Your task to perform on an android device: open app "Upside-Cash back on gas & food" (install if not already installed) Image 0: 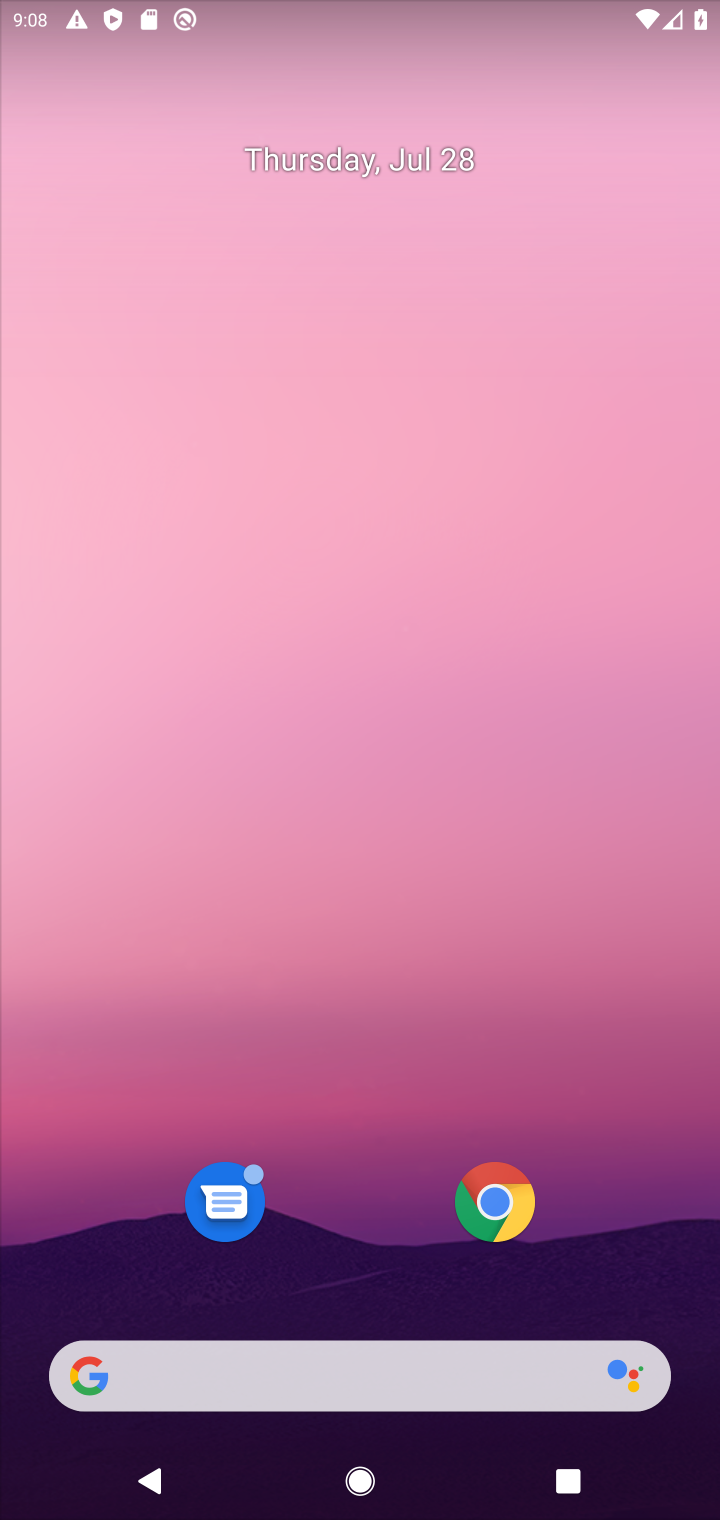
Step 0: drag from (524, 1169) to (704, 7)
Your task to perform on an android device: open app "Upside-Cash back on gas & food" (install if not already installed) Image 1: 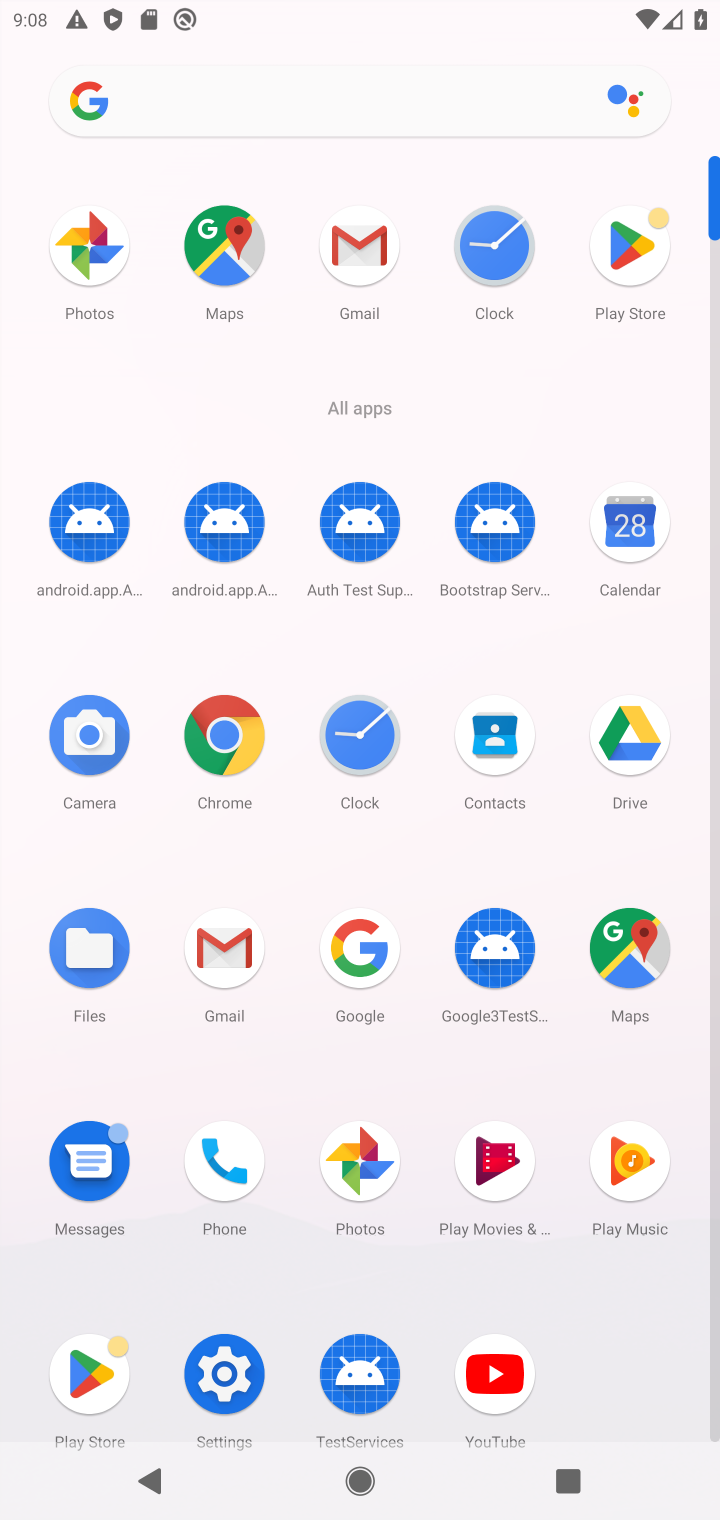
Step 1: click (635, 260)
Your task to perform on an android device: open app "Upside-Cash back on gas & food" (install if not already installed) Image 2: 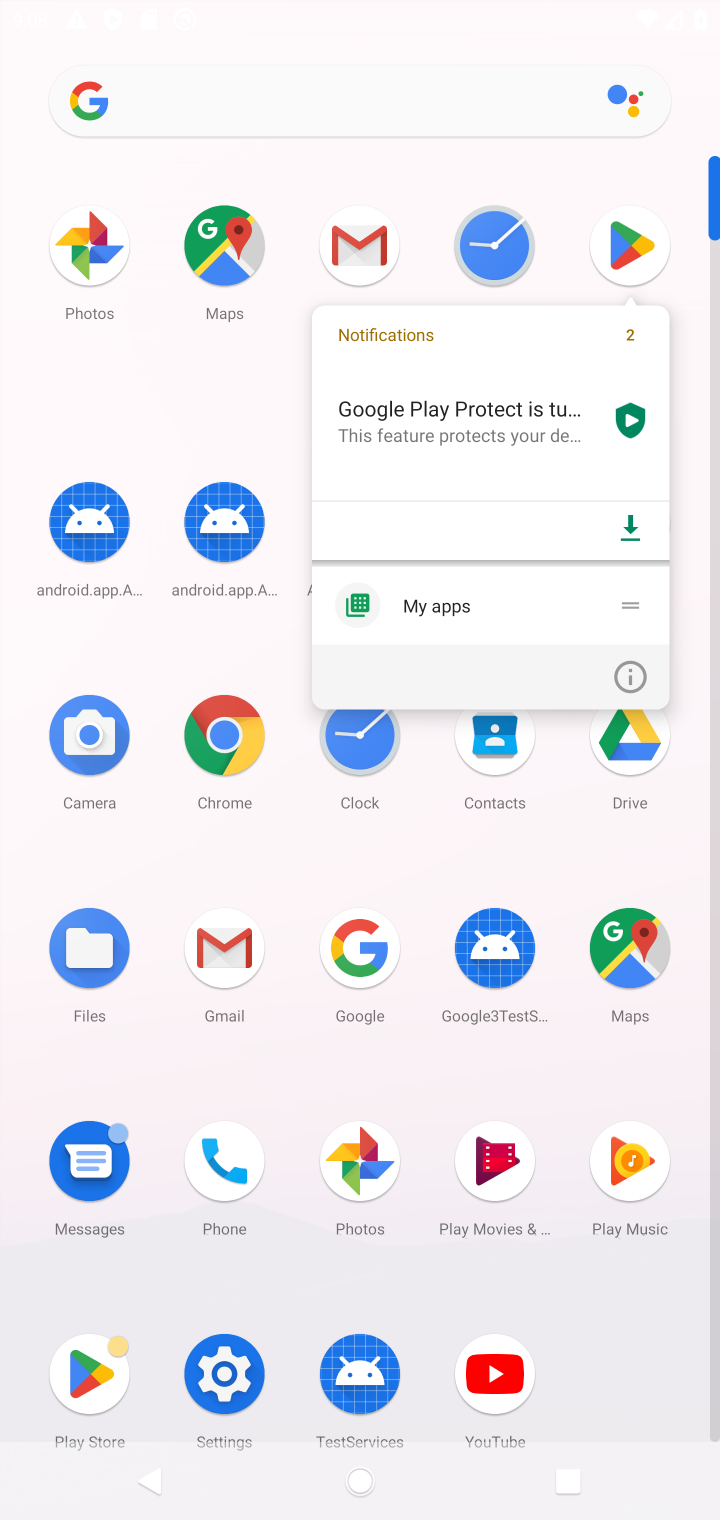
Step 2: click (656, 243)
Your task to perform on an android device: open app "Upside-Cash back on gas & food" (install if not already installed) Image 3: 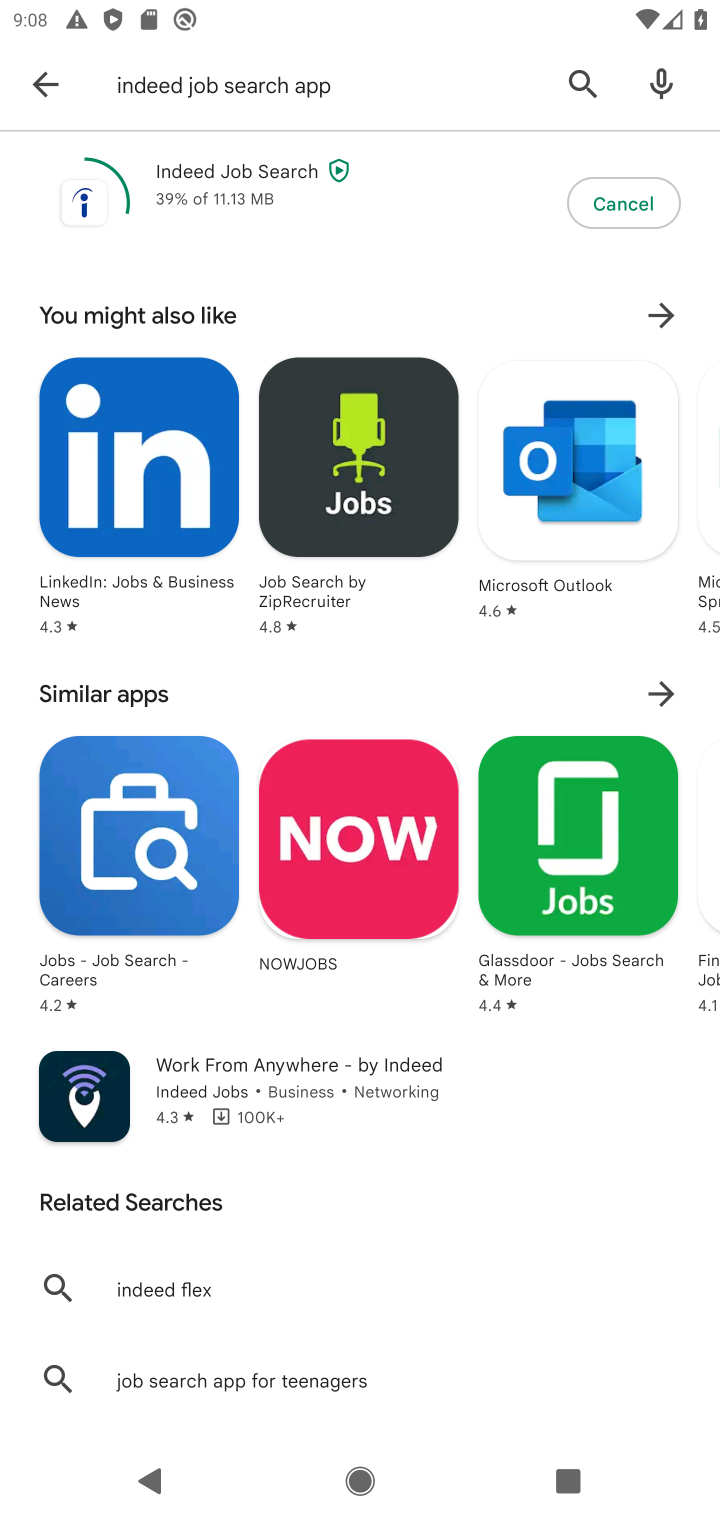
Step 3: click (581, 77)
Your task to perform on an android device: open app "Upside-Cash back on gas & food" (install if not already installed) Image 4: 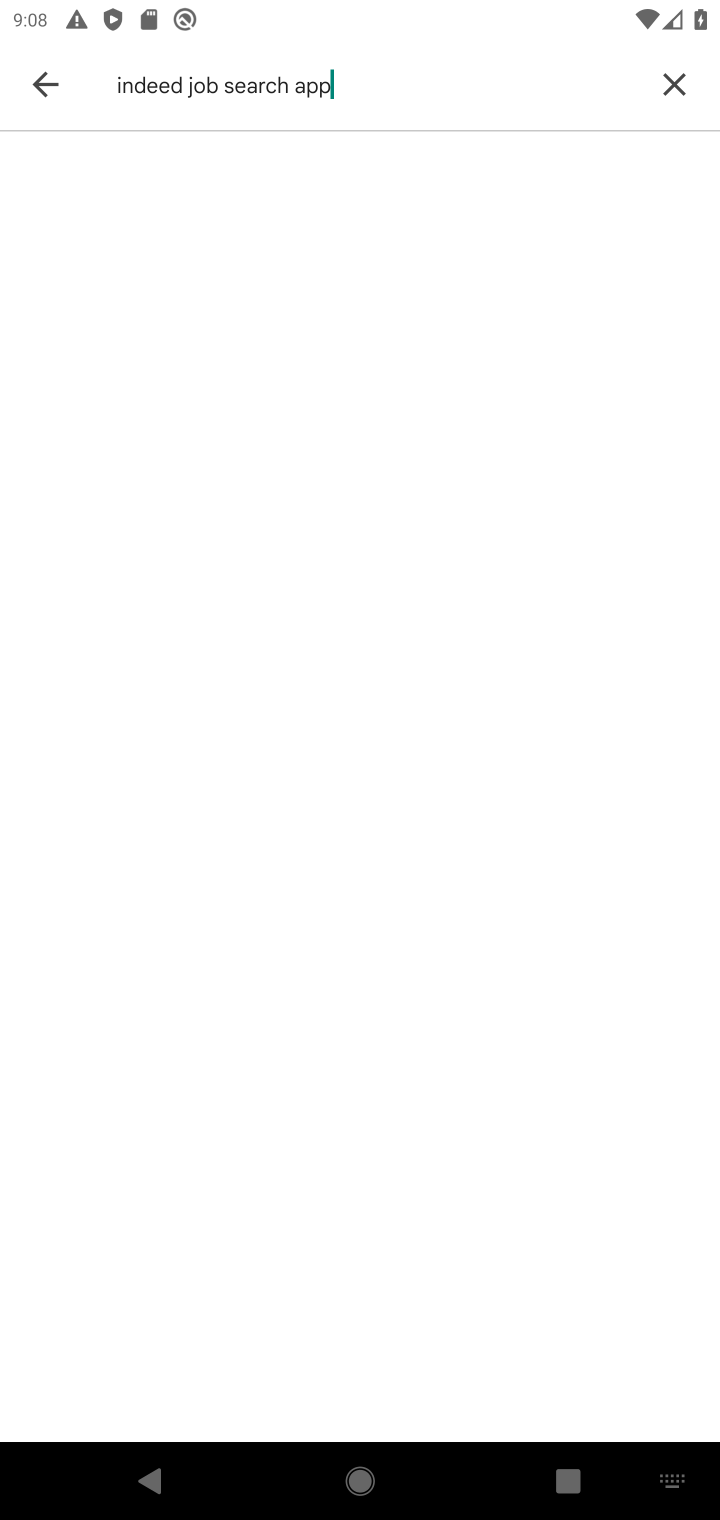
Step 4: click (675, 84)
Your task to perform on an android device: open app "Upside-Cash back on gas & food" (install if not already installed) Image 5: 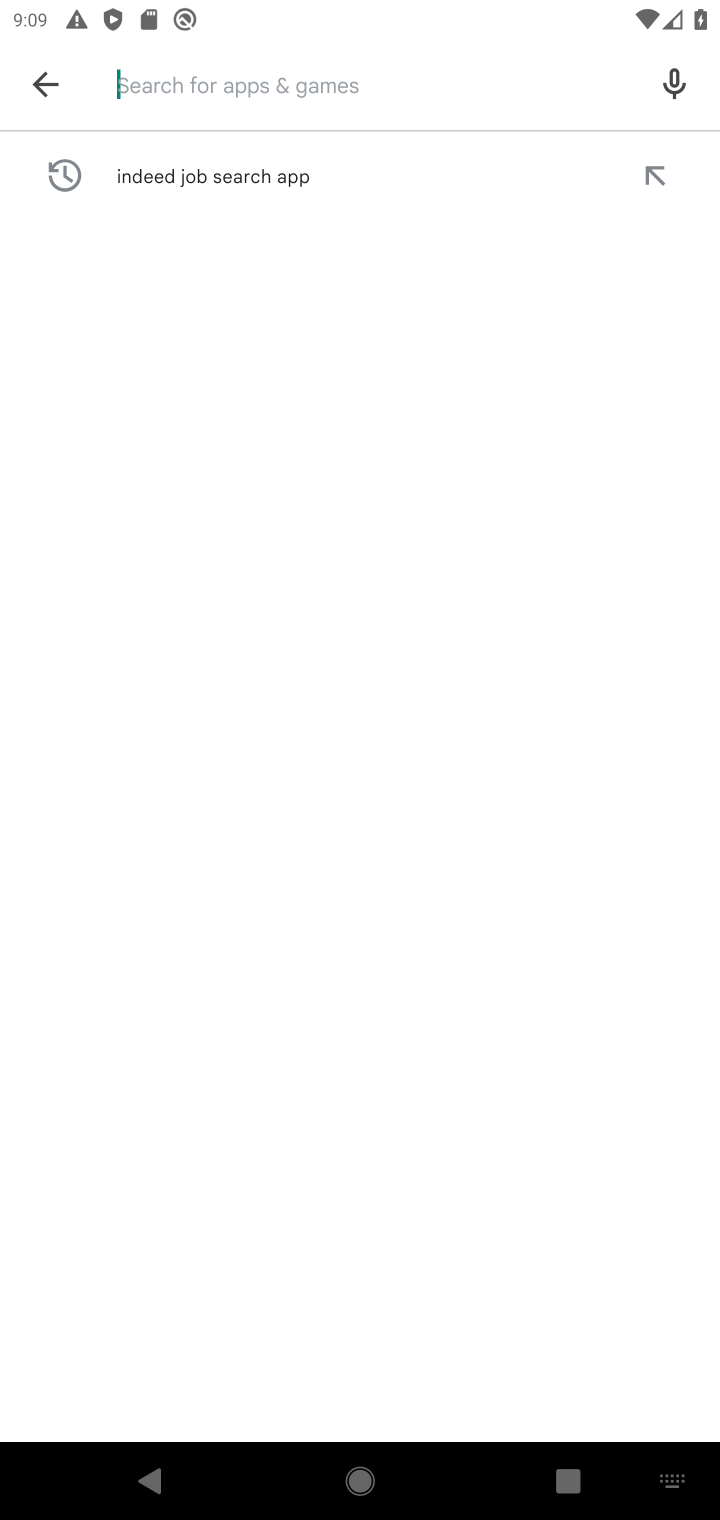
Step 5: type "upside-cashback on gas & food"
Your task to perform on an android device: open app "Upside-Cash back on gas & food" (install if not already installed) Image 6: 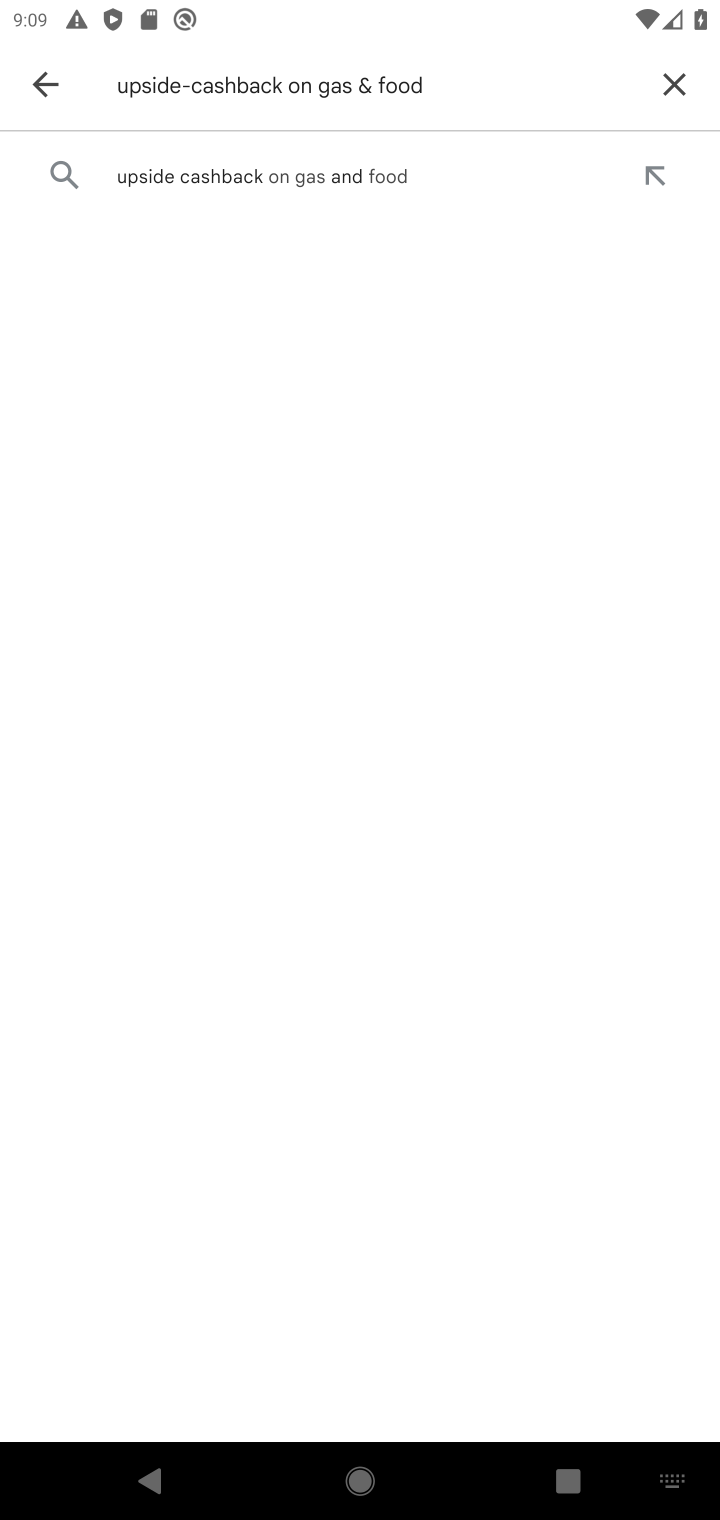
Step 6: click (368, 164)
Your task to perform on an android device: open app "Upside-Cash back on gas & food" (install if not already installed) Image 7: 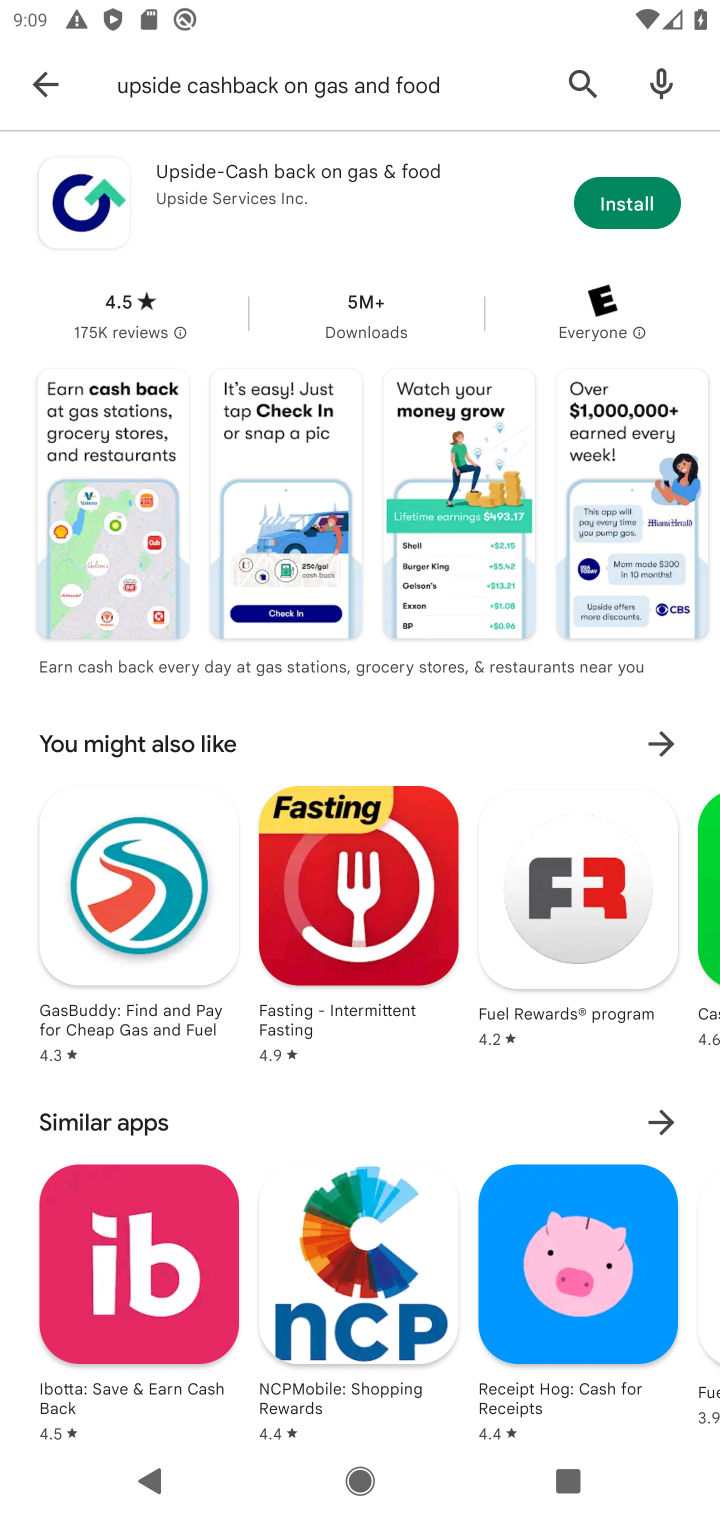
Step 7: click (603, 190)
Your task to perform on an android device: open app "Upside-Cash back on gas & food" (install if not already installed) Image 8: 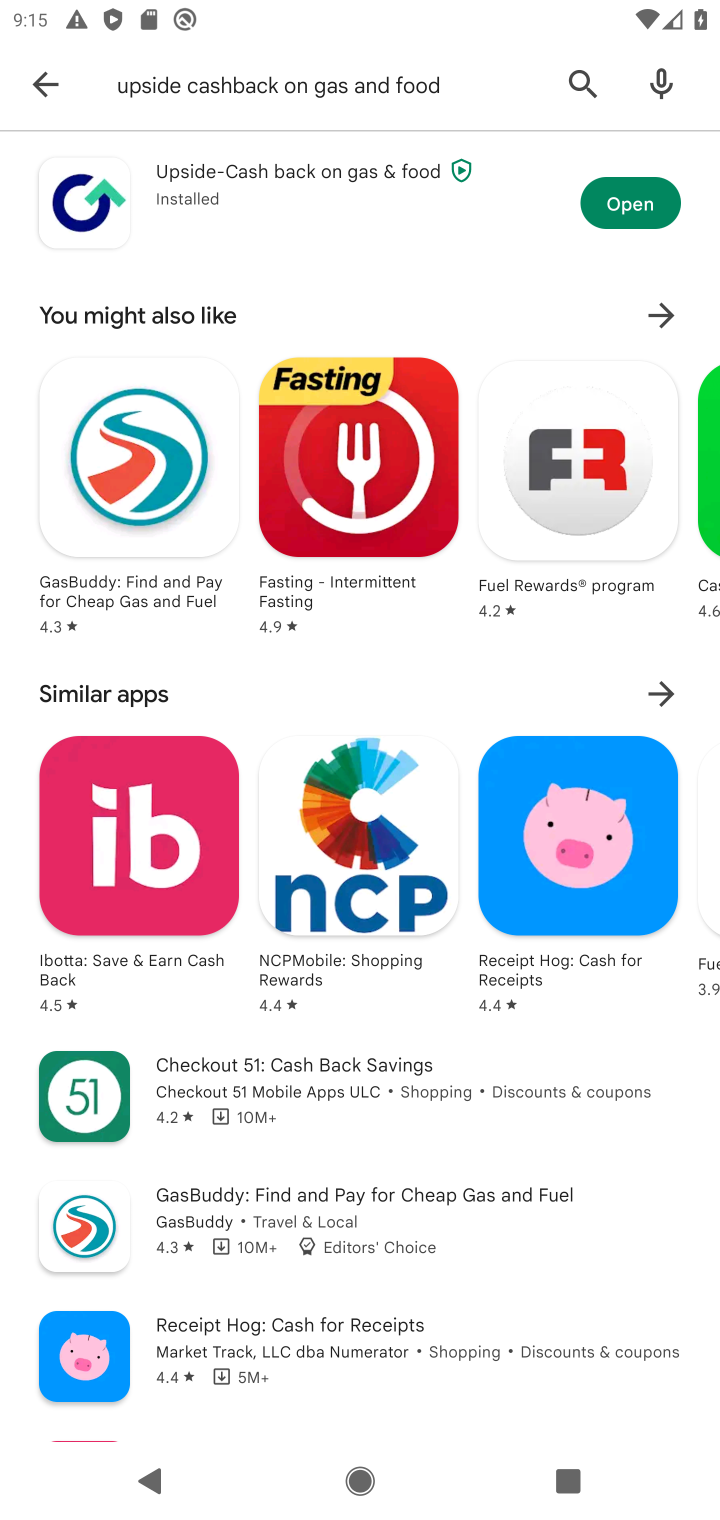
Step 8: click (620, 213)
Your task to perform on an android device: open app "Upside-Cash back on gas & food" (install if not already installed) Image 9: 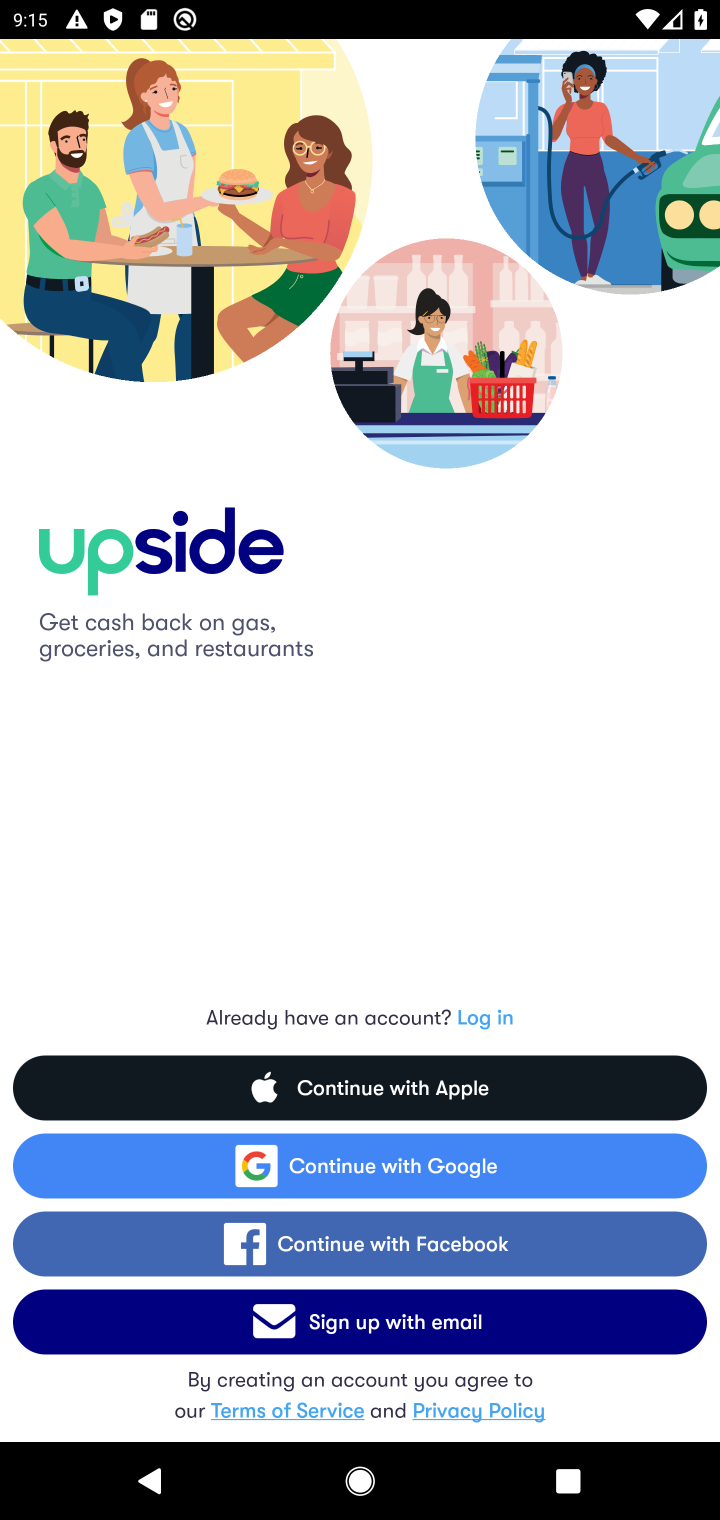
Step 9: task complete